Your task to perform on an android device: Open the calendar app, open the side menu, and click the "Day" option Image 0: 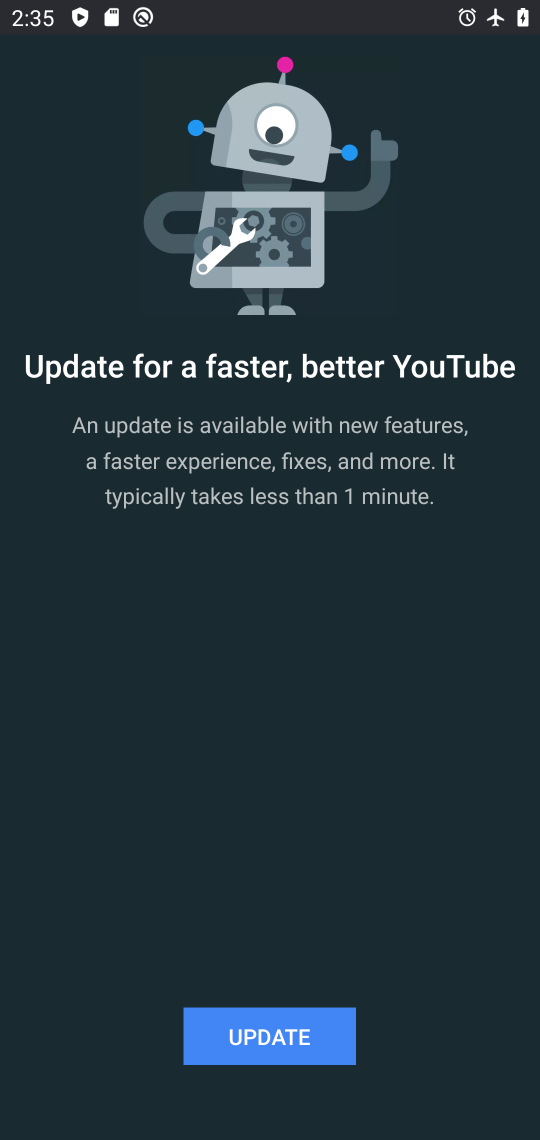
Step 0: press home button
Your task to perform on an android device: Open the calendar app, open the side menu, and click the "Day" option Image 1: 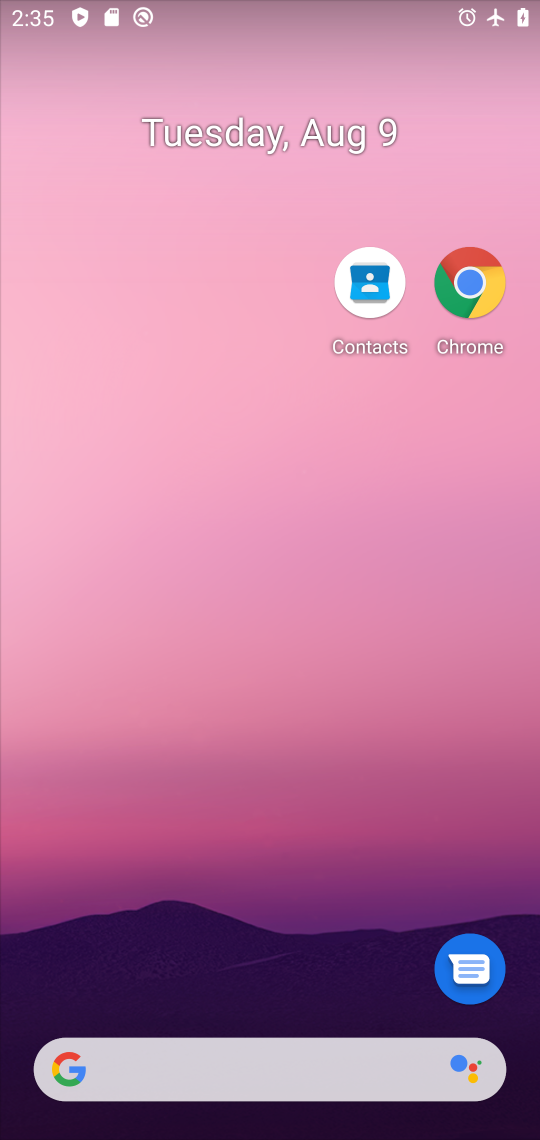
Step 1: drag from (333, 951) to (310, 0)
Your task to perform on an android device: Open the calendar app, open the side menu, and click the "Day" option Image 2: 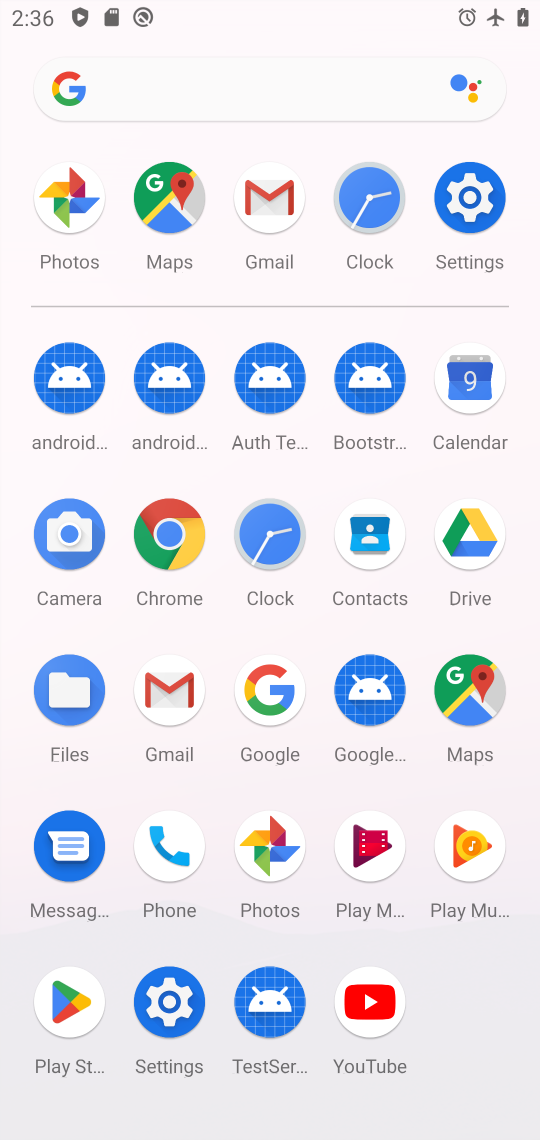
Step 2: click (471, 374)
Your task to perform on an android device: Open the calendar app, open the side menu, and click the "Day" option Image 3: 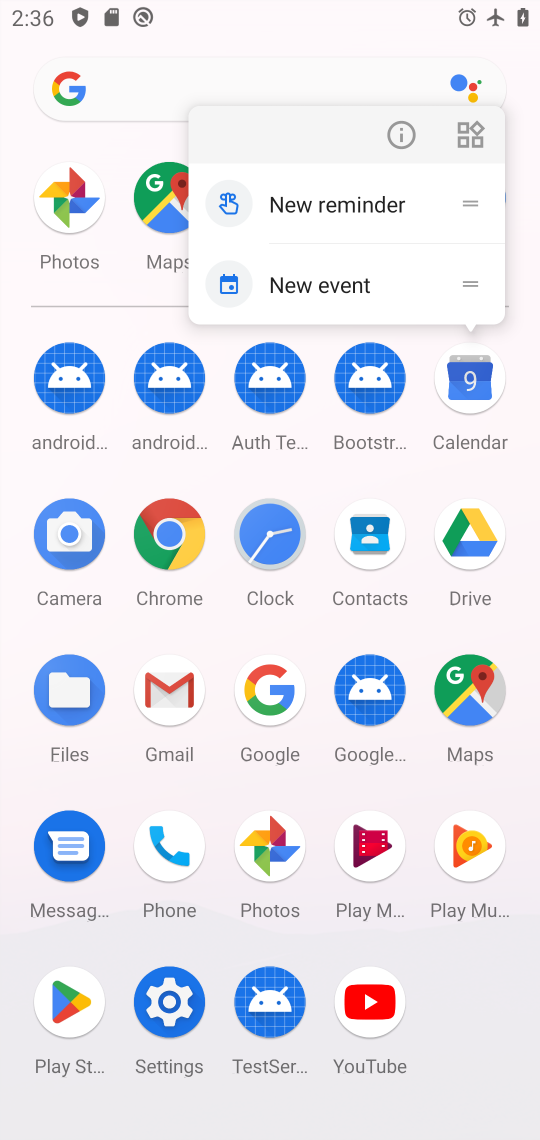
Step 3: click (401, 142)
Your task to perform on an android device: Open the calendar app, open the side menu, and click the "Day" option Image 4: 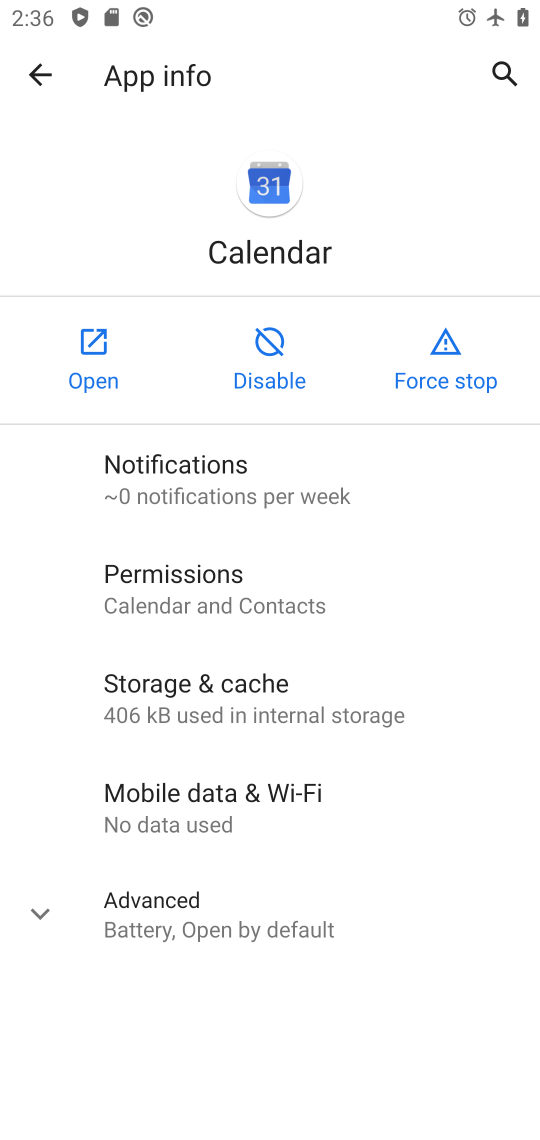
Step 4: click (120, 370)
Your task to perform on an android device: Open the calendar app, open the side menu, and click the "Day" option Image 5: 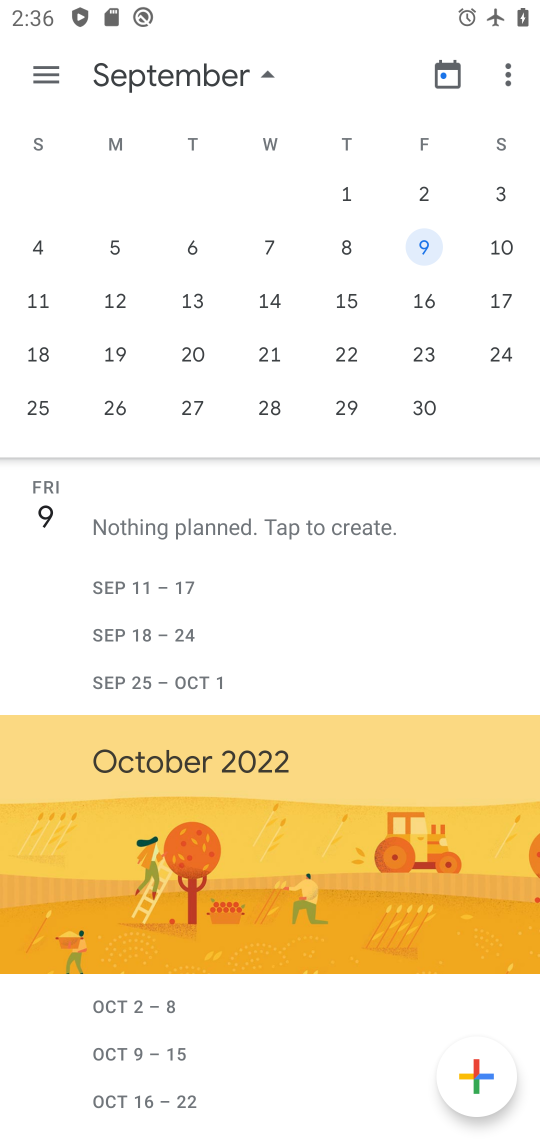
Step 5: click (48, 71)
Your task to perform on an android device: Open the calendar app, open the side menu, and click the "Day" option Image 6: 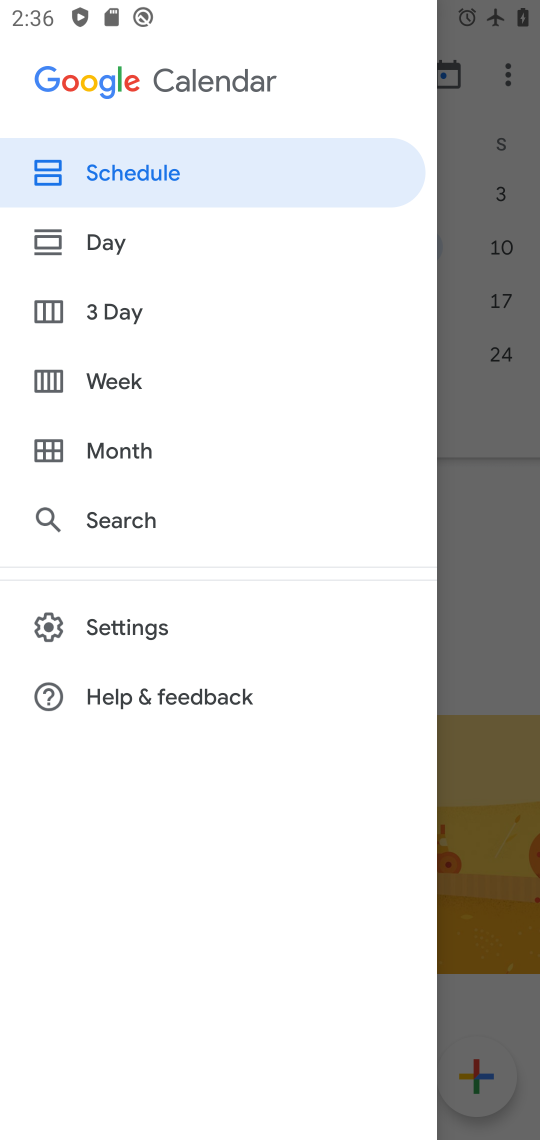
Step 6: click (212, 248)
Your task to perform on an android device: Open the calendar app, open the side menu, and click the "Day" option Image 7: 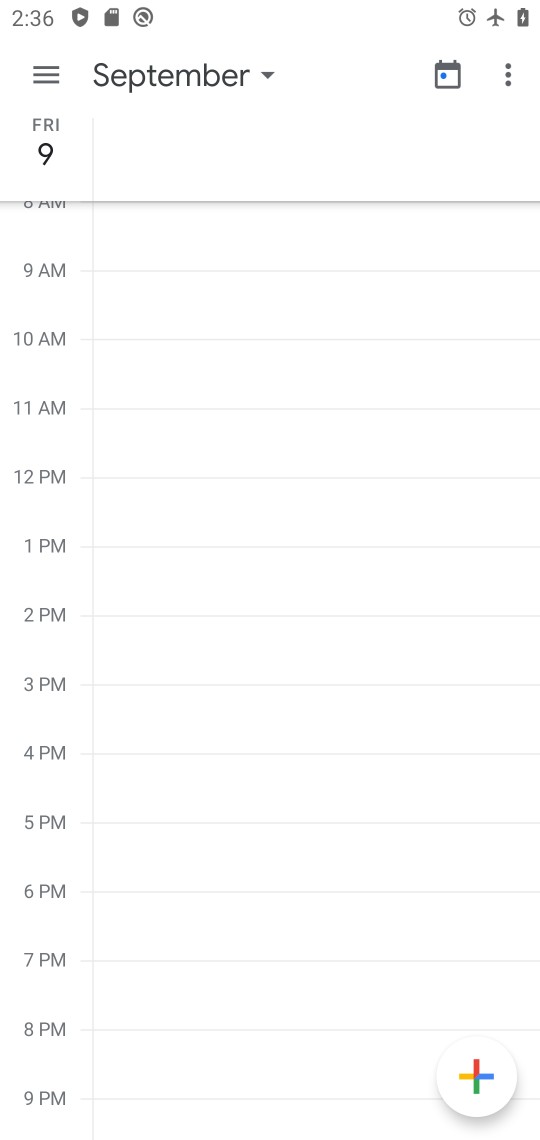
Step 7: task complete